Your task to perform on an android device: Open calendar and show me the third week of next month Image 0: 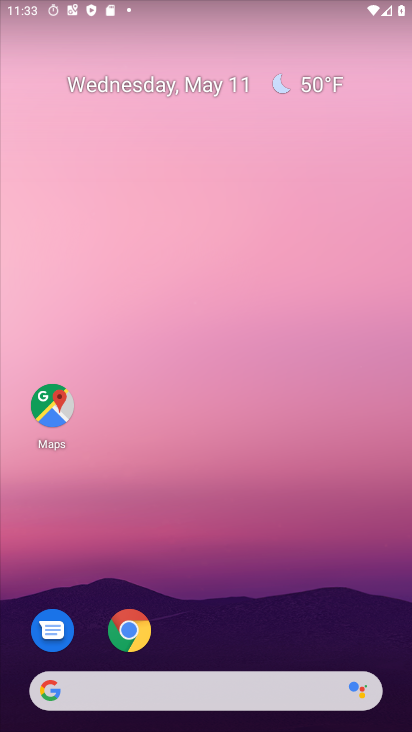
Step 0: drag from (208, 631) to (195, 225)
Your task to perform on an android device: Open calendar and show me the third week of next month Image 1: 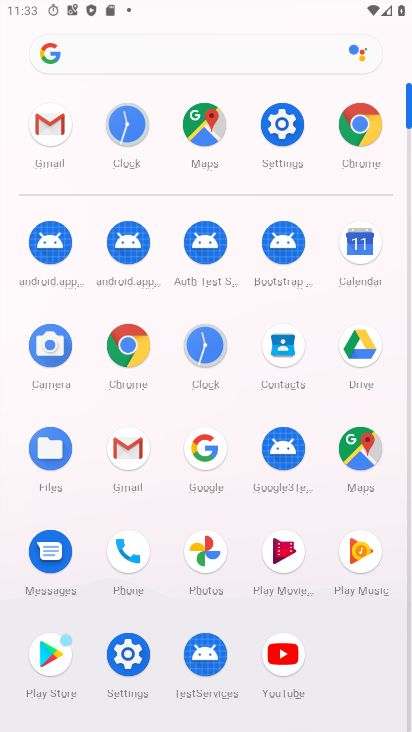
Step 1: click (364, 254)
Your task to perform on an android device: Open calendar and show me the third week of next month Image 2: 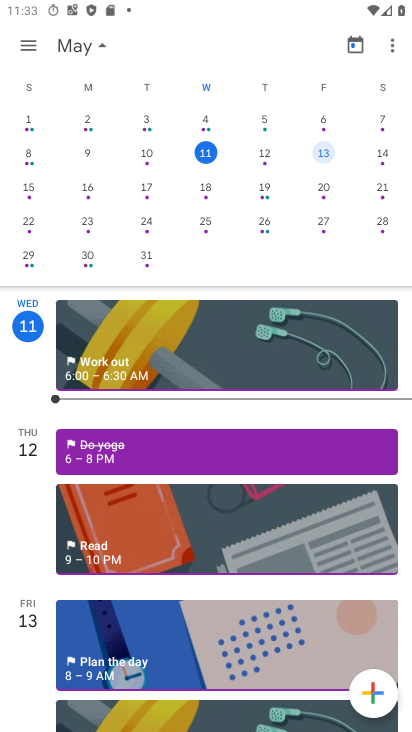
Step 2: click (90, 62)
Your task to perform on an android device: Open calendar and show me the third week of next month Image 3: 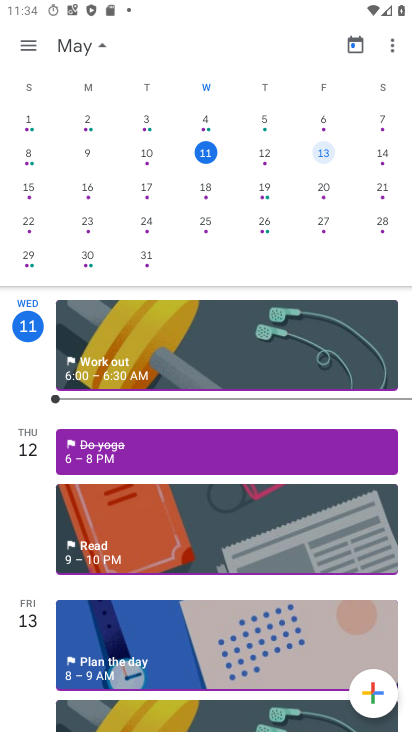
Step 3: drag from (299, 131) to (25, 147)
Your task to perform on an android device: Open calendar and show me the third week of next month Image 4: 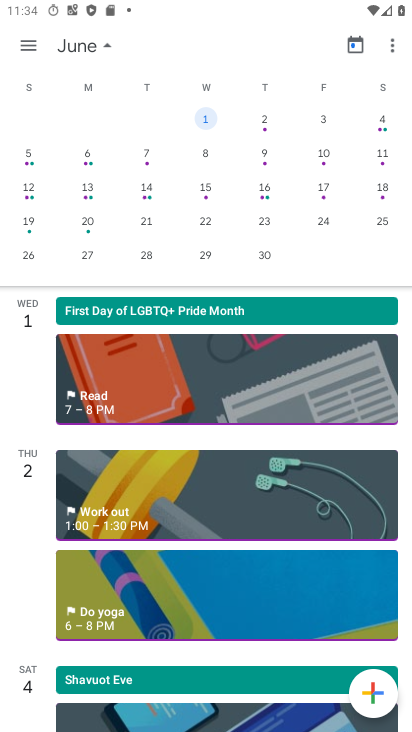
Step 4: click (75, 183)
Your task to perform on an android device: Open calendar and show me the third week of next month Image 5: 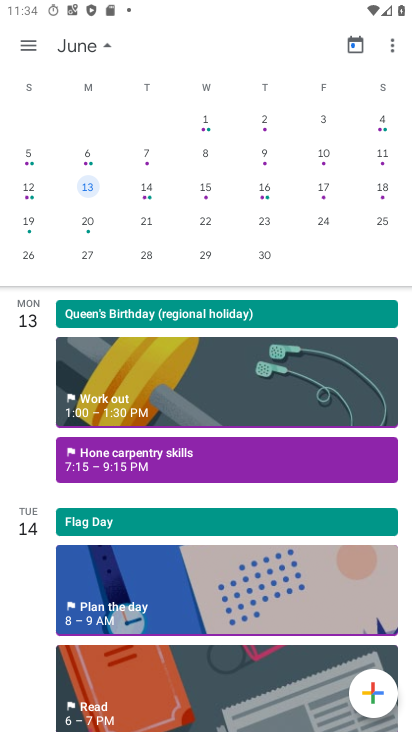
Step 5: click (34, 44)
Your task to perform on an android device: Open calendar and show me the third week of next month Image 6: 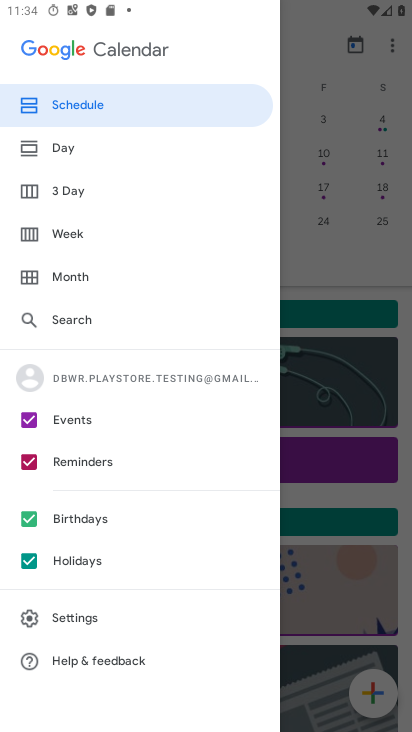
Step 6: click (89, 231)
Your task to perform on an android device: Open calendar and show me the third week of next month Image 7: 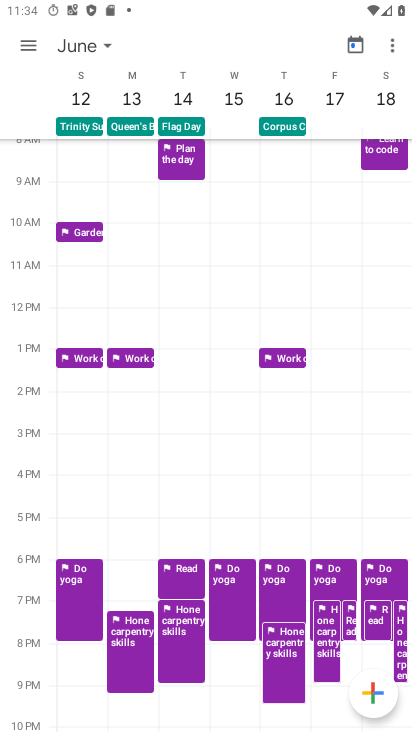
Step 7: task complete